Your task to perform on an android device: Open internet settings Image 0: 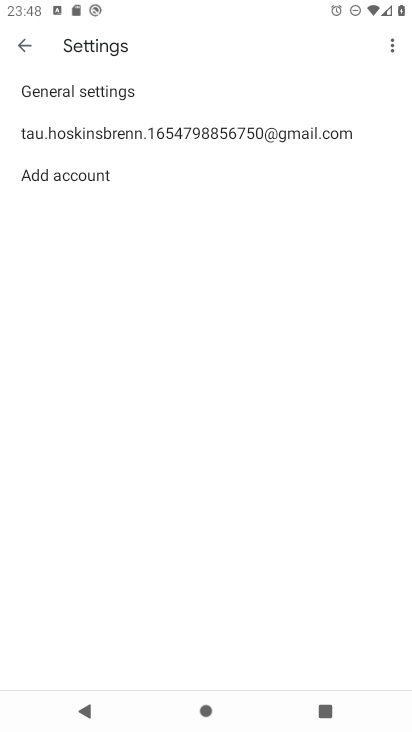
Step 0: press home button
Your task to perform on an android device: Open internet settings Image 1: 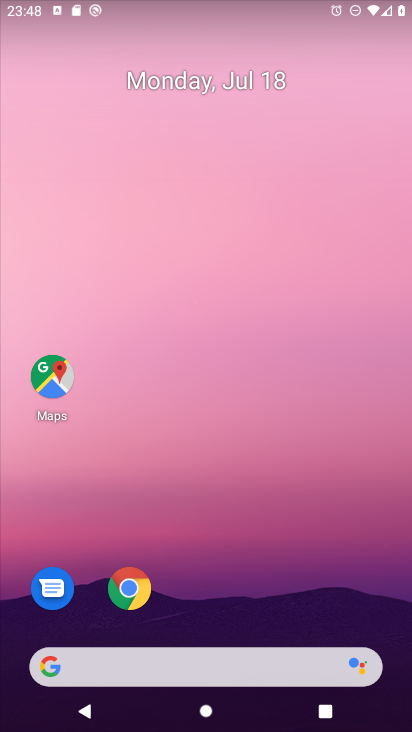
Step 1: drag from (374, 621) to (343, 4)
Your task to perform on an android device: Open internet settings Image 2: 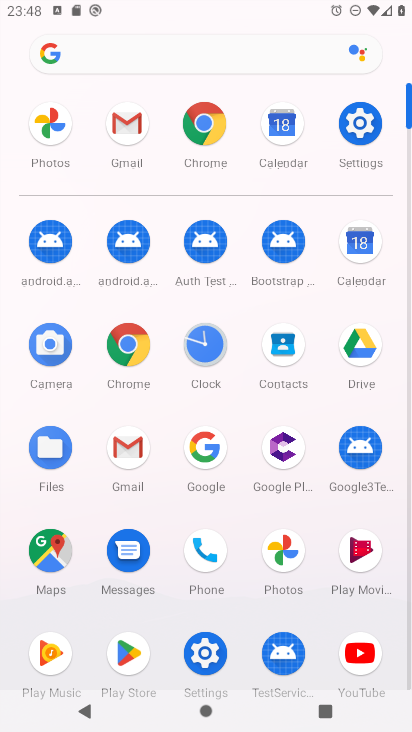
Step 2: click (204, 655)
Your task to perform on an android device: Open internet settings Image 3: 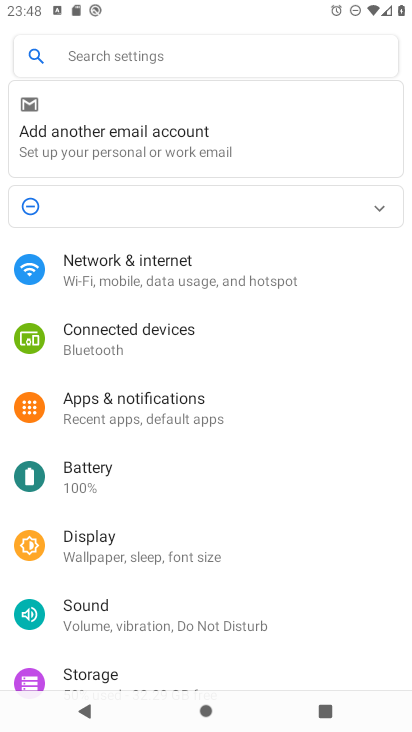
Step 3: click (93, 262)
Your task to perform on an android device: Open internet settings Image 4: 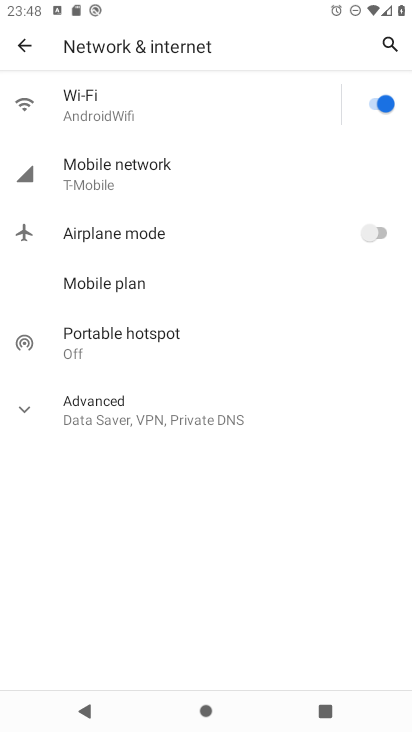
Step 4: click (80, 99)
Your task to perform on an android device: Open internet settings Image 5: 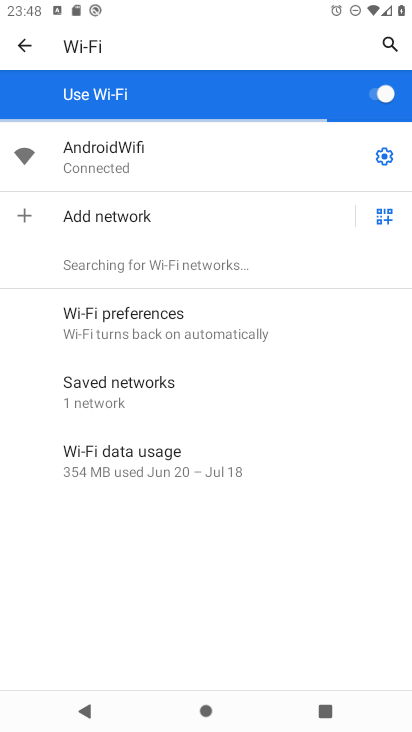
Step 5: click (385, 157)
Your task to perform on an android device: Open internet settings Image 6: 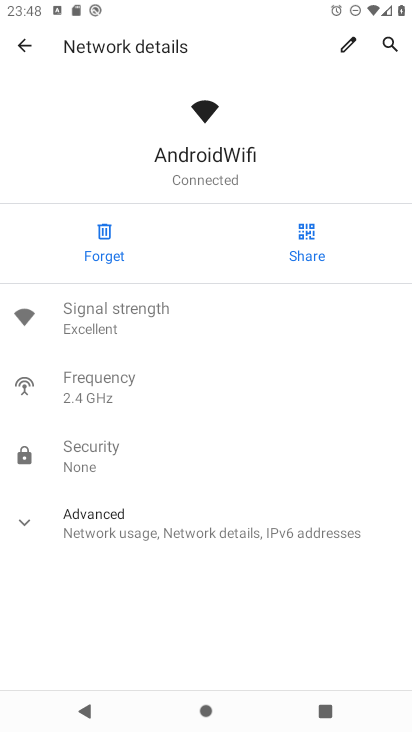
Step 6: task complete